Your task to perform on an android device: Open Google Image 0: 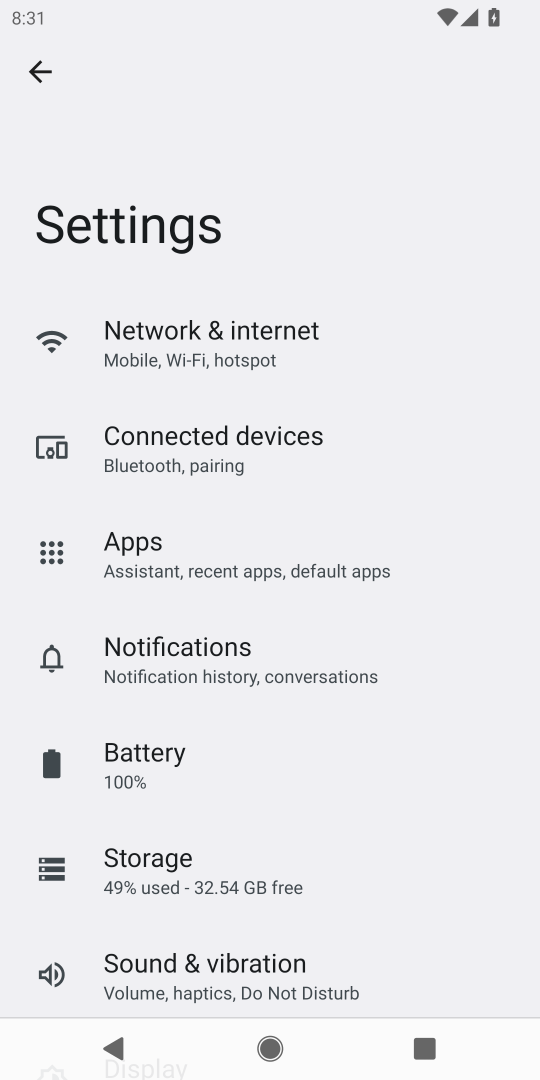
Step 0: press home button
Your task to perform on an android device: Open Google Image 1: 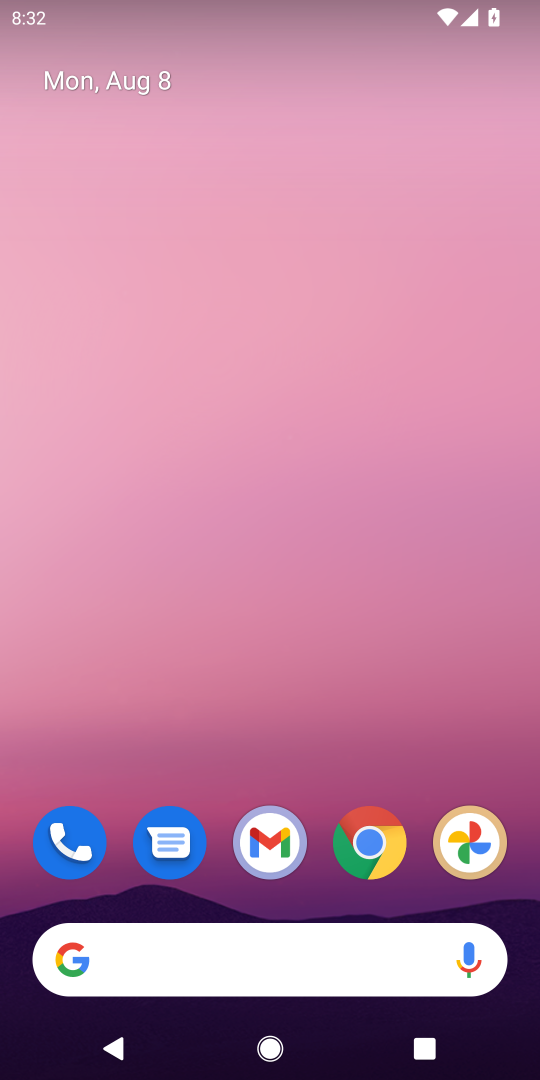
Step 1: drag from (268, 748) to (325, 31)
Your task to perform on an android device: Open Google Image 2: 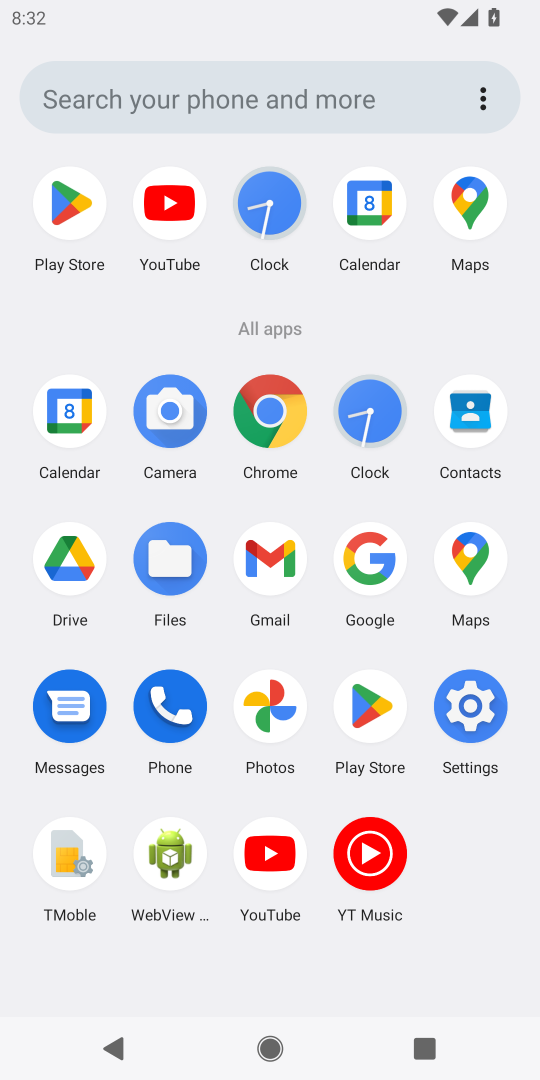
Step 2: click (357, 567)
Your task to perform on an android device: Open Google Image 3: 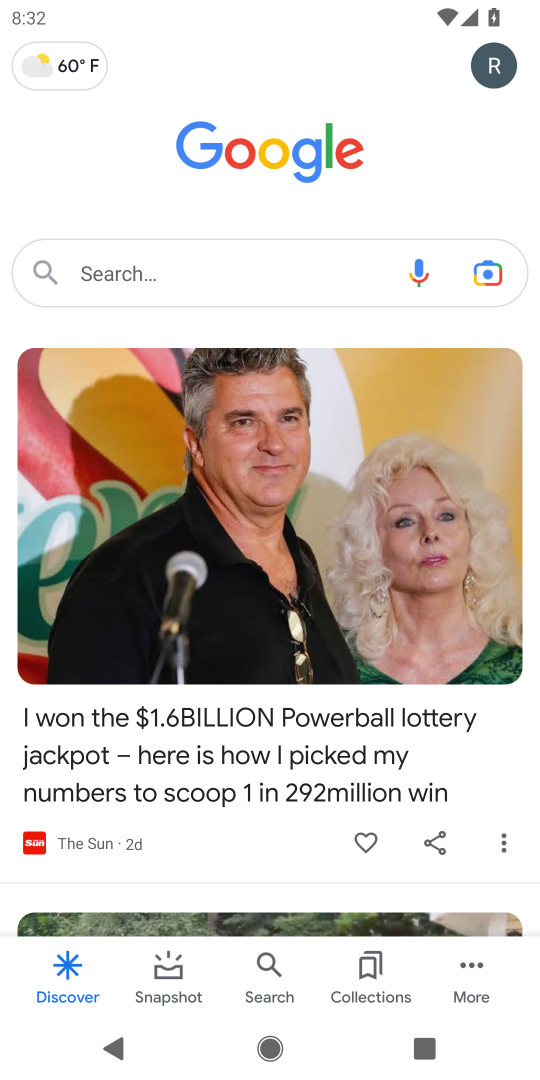
Step 3: task complete